Your task to perform on an android device: Go to settings Image 0: 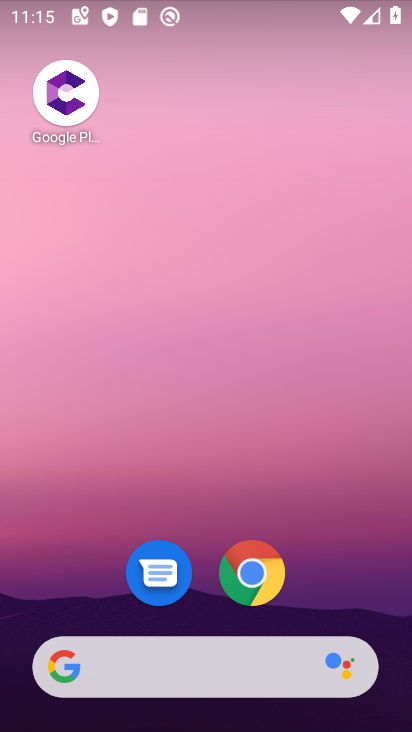
Step 0: drag from (204, 495) to (140, 55)
Your task to perform on an android device: Go to settings Image 1: 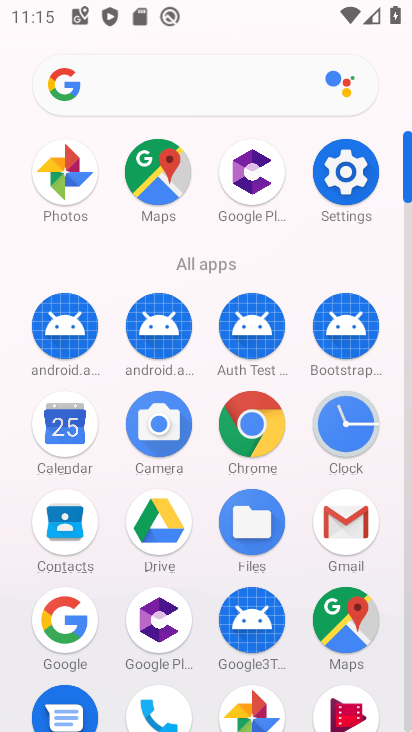
Step 1: click (342, 173)
Your task to perform on an android device: Go to settings Image 2: 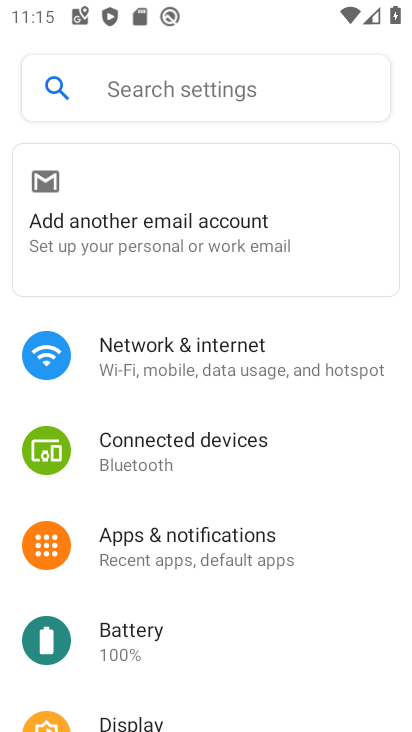
Step 2: task complete